Your task to perform on an android device: Search for seafood restaurants on Google Maps Image 0: 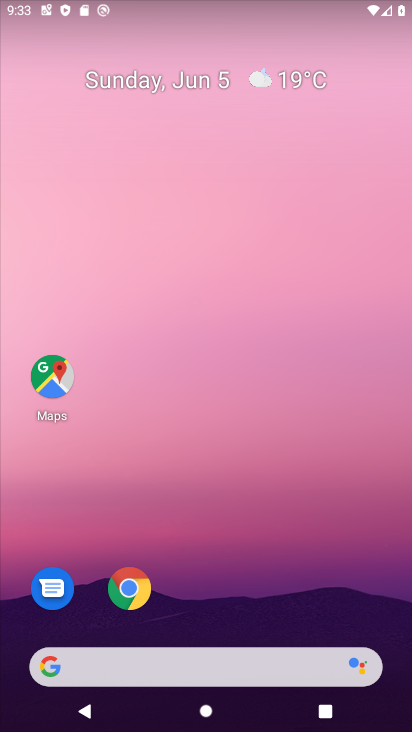
Step 0: drag from (336, 542) to (328, 180)
Your task to perform on an android device: Search for seafood restaurants on Google Maps Image 1: 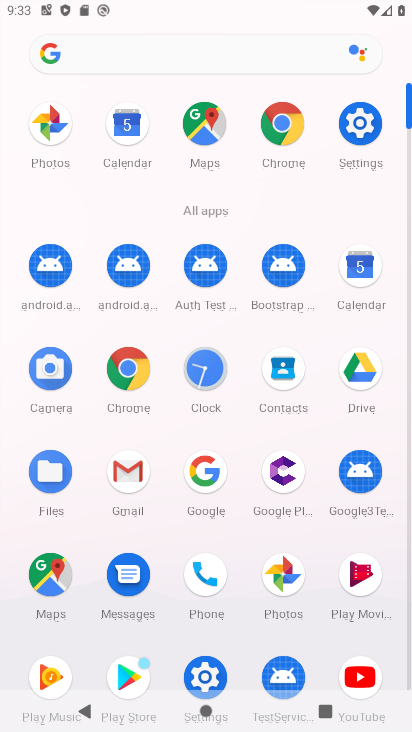
Step 1: click (204, 130)
Your task to perform on an android device: Search for seafood restaurants on Google Maps Image 2: 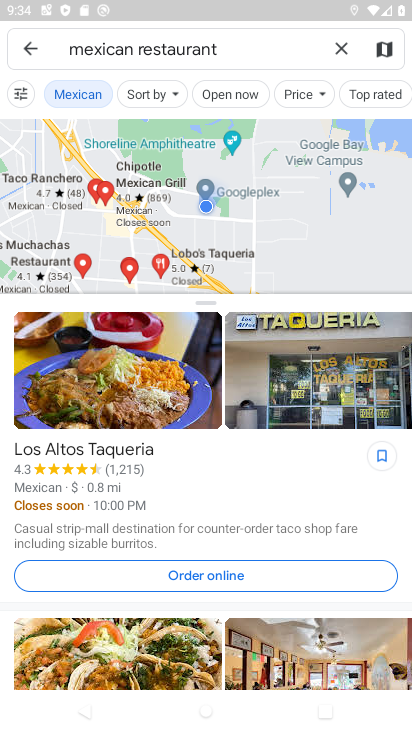
Step 2: click (338, 50)
Your task to perform on an android device: Search for seafood restaurants on Google Maps Image 3: 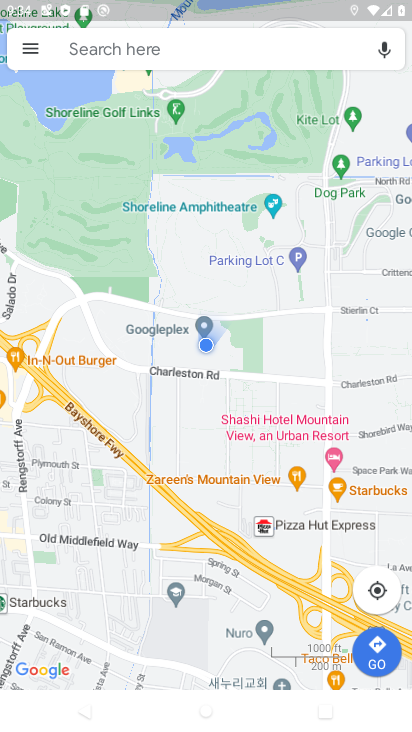
Step 3: click (253, 62)
Your task to perform on an android device: Search for seafood restaurants on Google Maps Image 4: 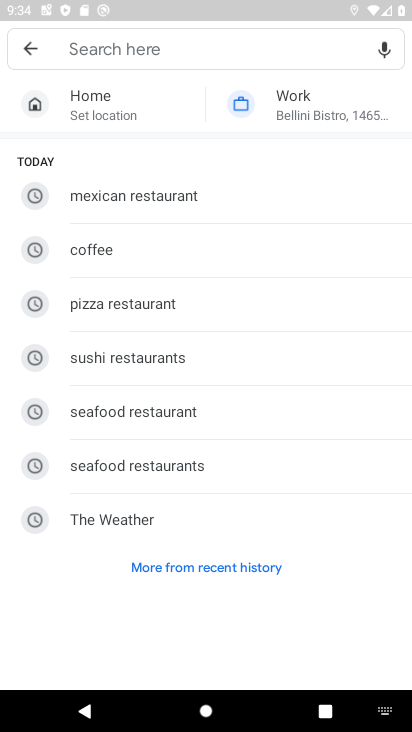
Step 4: type "seafood restaurants"
Your task to perform on an android device: Search for seafood restaurants on Google Maps Image 5: 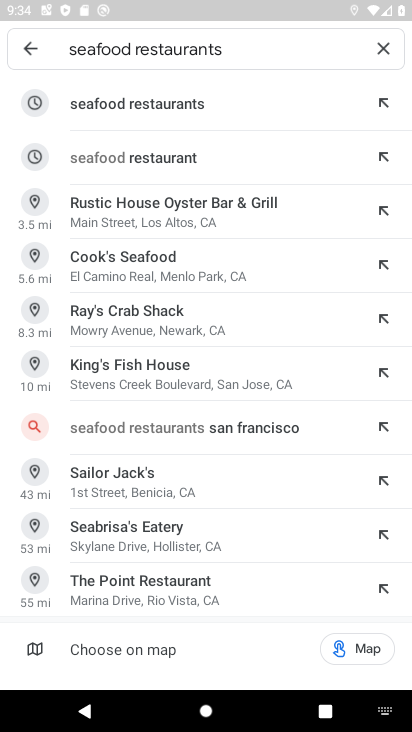
Step 5: click (234, 112)
Your task to perform on an android device: Search for seafood restaurants on Google Maps Image 6: 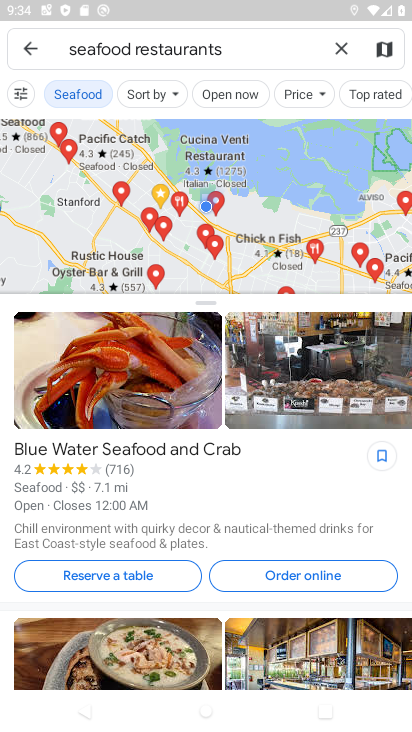
Step 6: task complete